Your task to perform on an android device: open a bookmark in the chrome app Image 0: 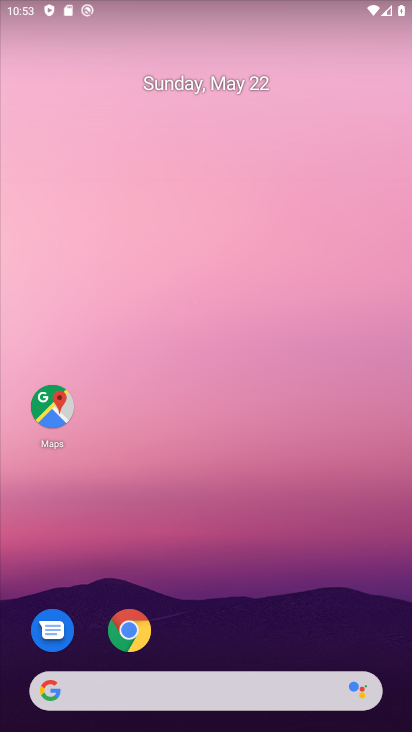
Step 0: drag from (369, 636) to (374, 242)
Your task to perform on an android device: open a bookmark in the chrome app Image 1: 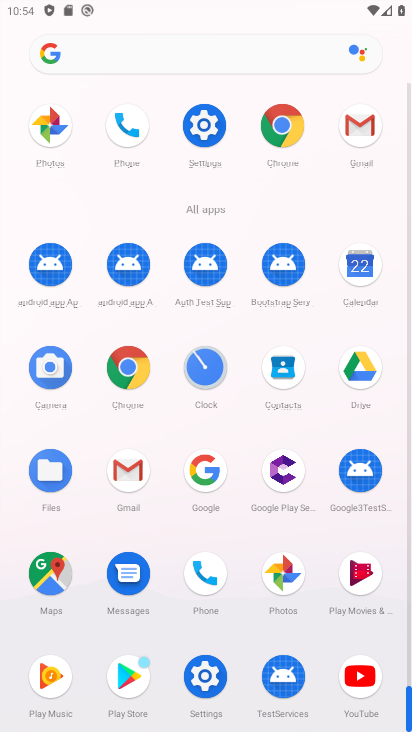
Step 1: click (109, 366)
Your task to perform on an android device: open a bookmark in the chrome app Image 2: 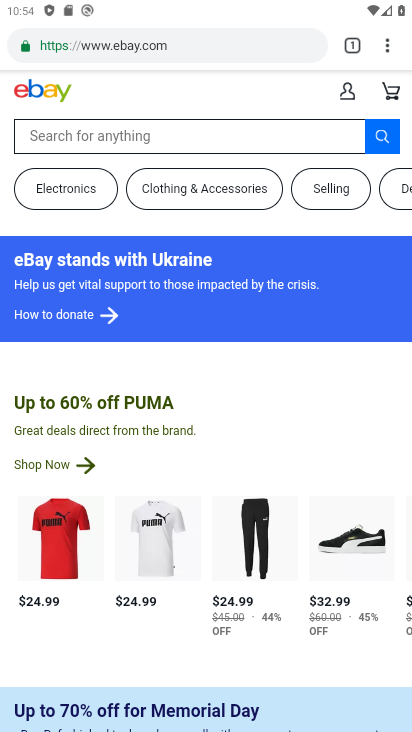
Step 2: task complete